Your task to perform on an android device: Go to privacy settings Image 0: 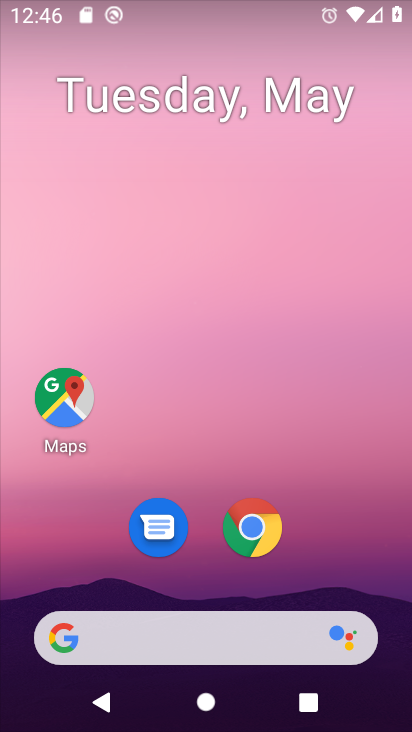
Step 0: drag from (241, 687) to (239, 0)
Your task to perform on an android device: Go to privacy settings Image 1: 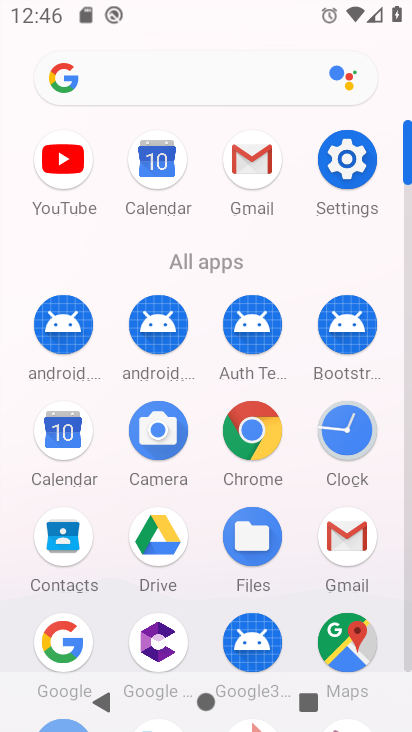
Step 1: click (352, 153)
Your task to perform on an android device: Go to privacy settings Image 2: 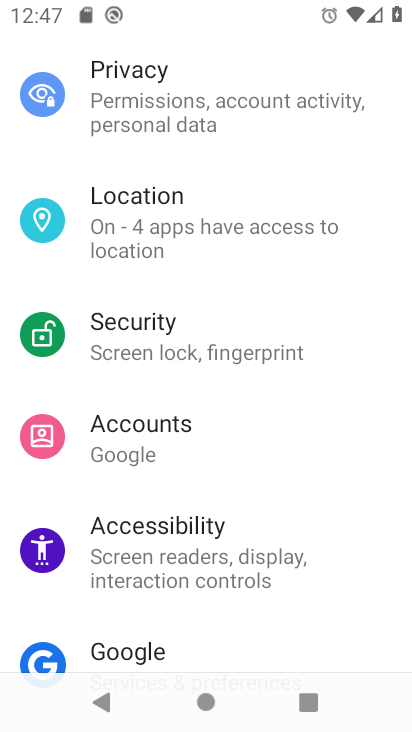
Step 2: click (258, 93)
Your task to perform on an android device: Go to privacy settings Image 3: 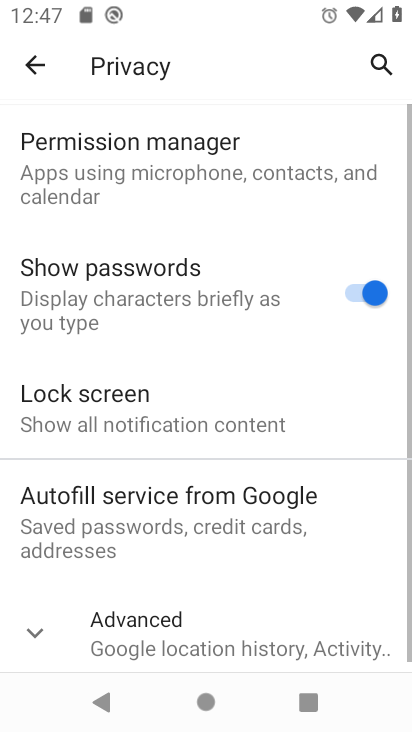
Step 3: task complete